Your task to perform on an android device: Open settings Image 0: 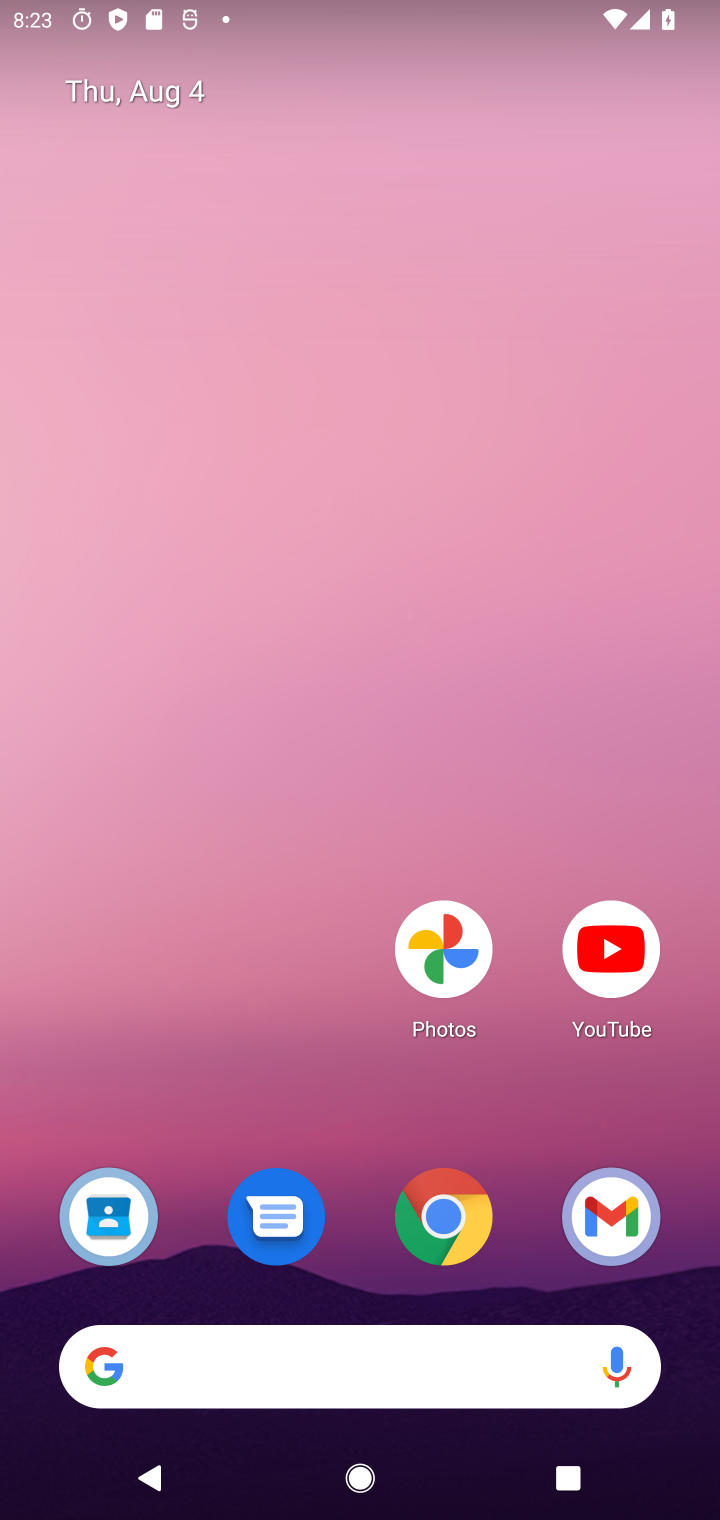
Step 0: drag from (387, 1303) to (349, 269)
Your task to perform on an android device: Open settings Image 1: 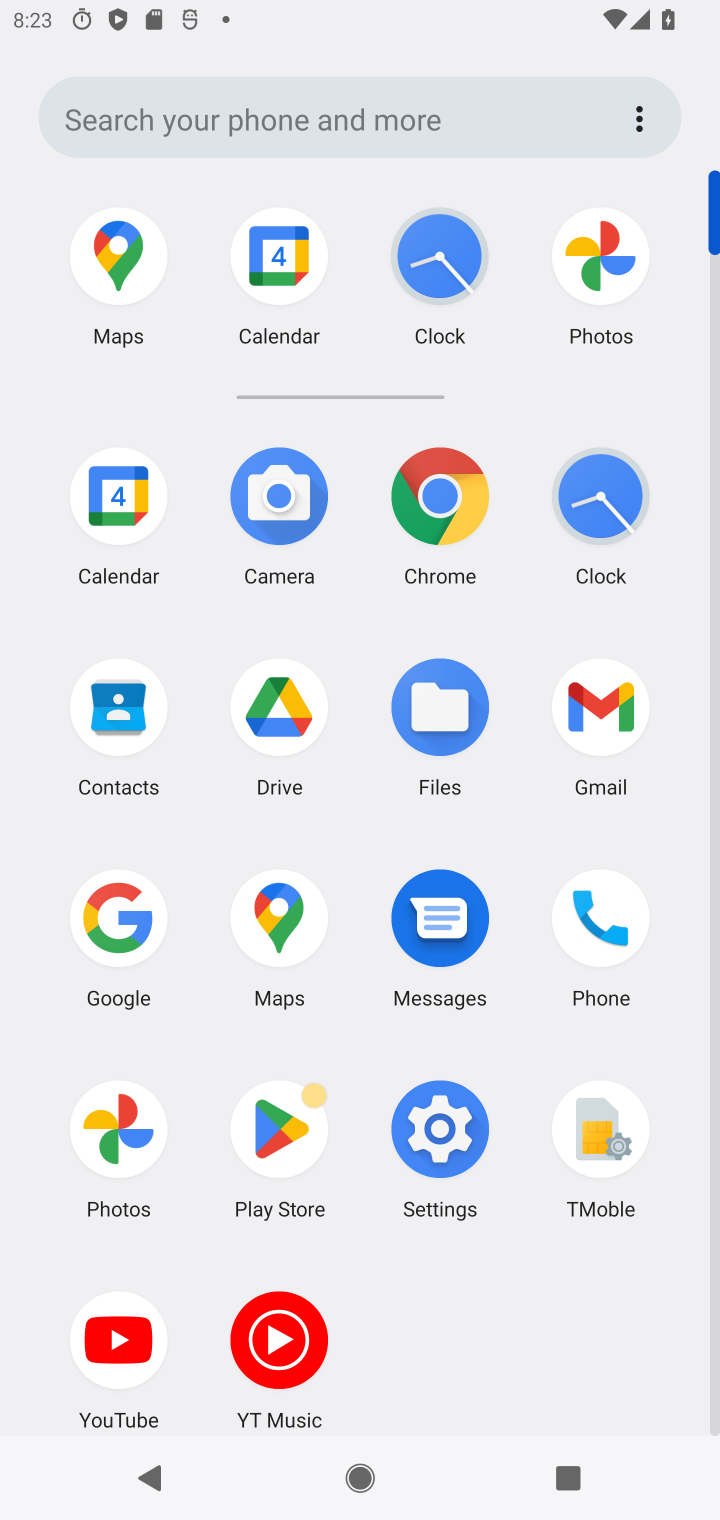
Step 1: click (464, 1131)
Your task to perform on an android device: Open settings Image 2: 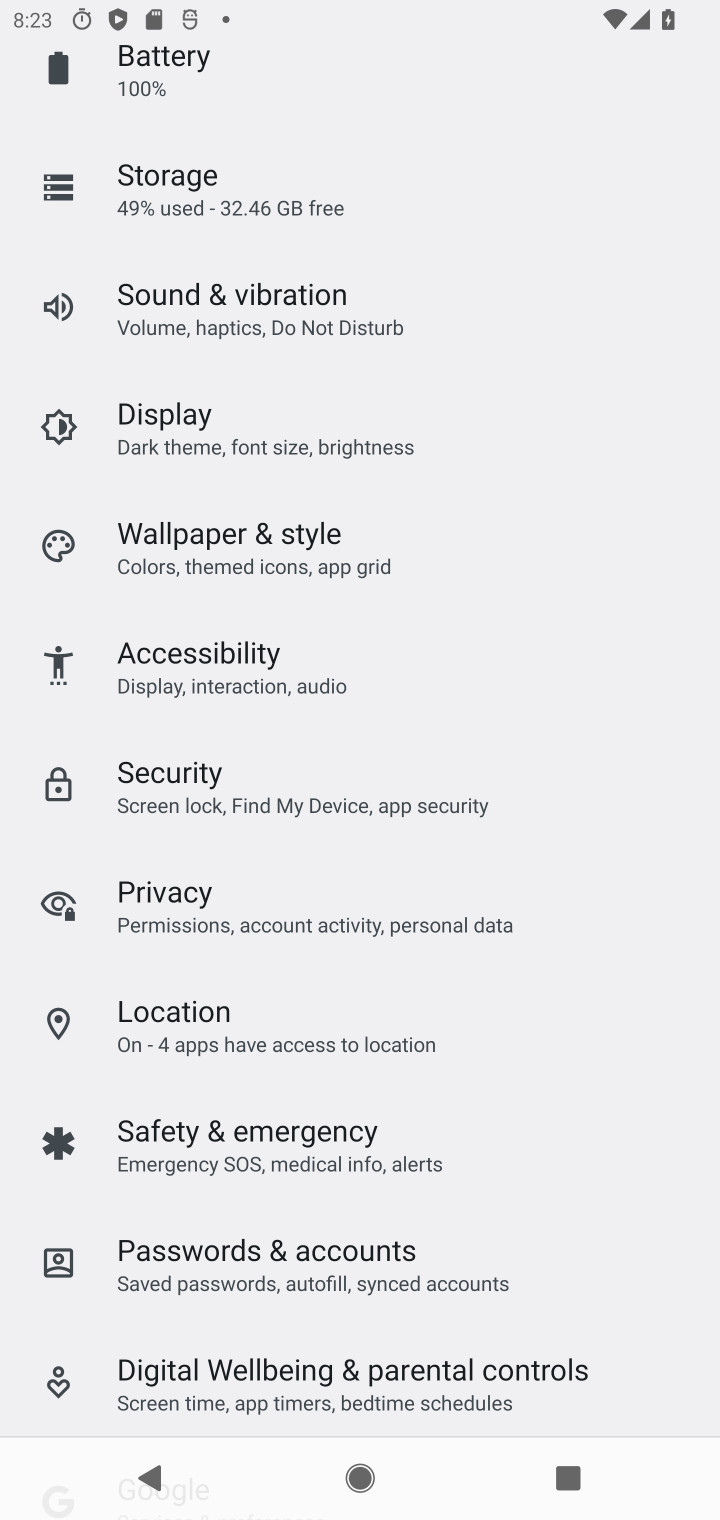
Step 2: task complete